Your task to perform on an android device: Open Android settings Image 0: 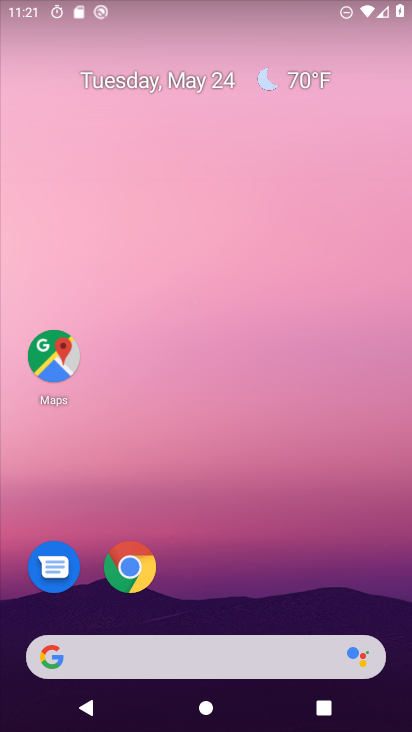
Step 0: drag from (400, 698) to (327, 170)
Your task to perform on an android device: Open Android settings Image 1: 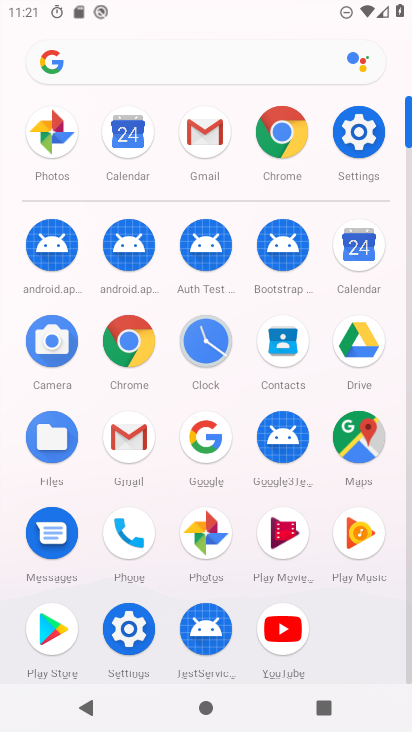
Step 1: click (355, 144)
Your task to perform on an android device: Open Android settings Image 2: 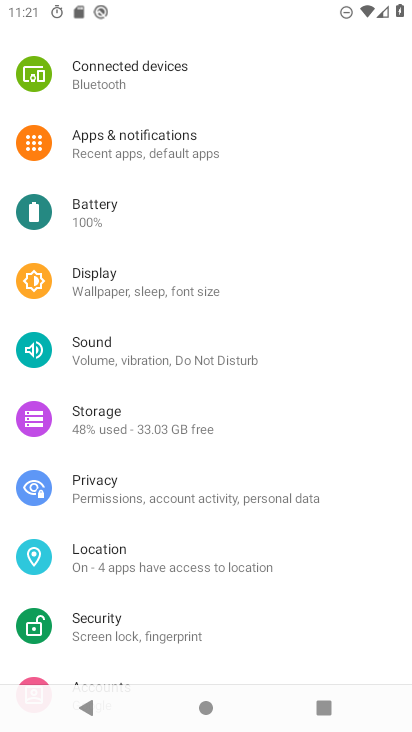
Step 2: task complete